Your task to perform on an android device: open sync settings in chrome Image 0: 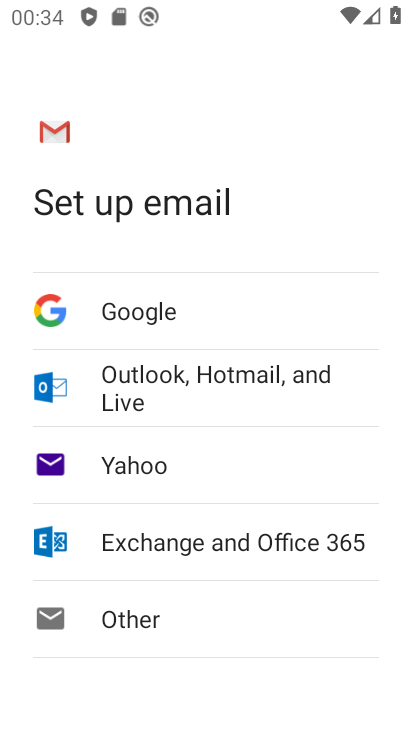
Step 0: press home button
Your task to perform on an android device: open sync settings in chrome Image 1: 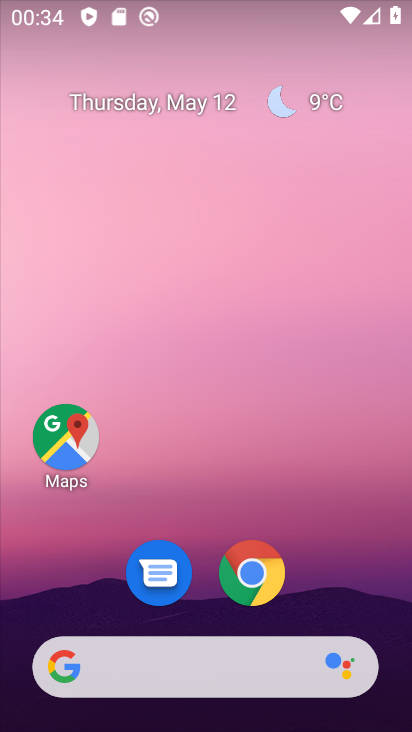
Step 1: click (266, 566)
Your task to perform on an android device: open sync settings in chrome Image 2: 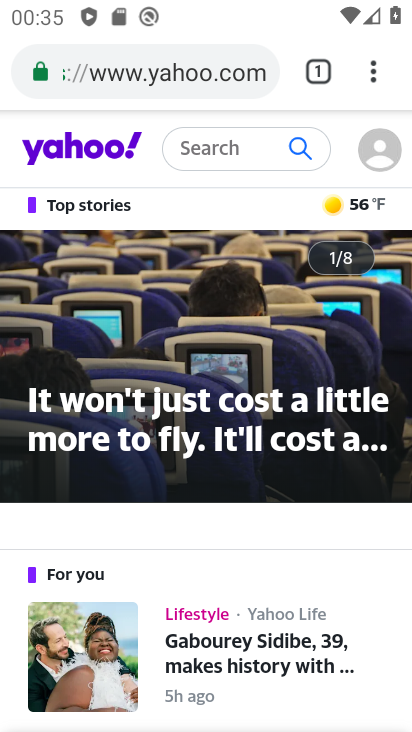
Step 2: click (378, 70)
Your task to perform on an android device: open sync settings in chrome Image 3: 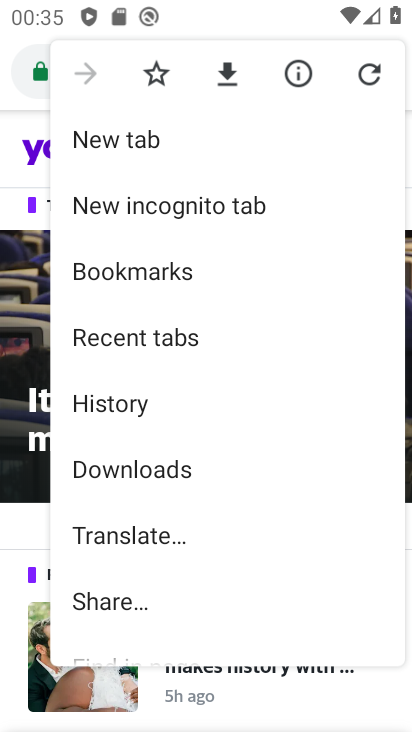
Step 3: drag from (127, 566) to (158, 291)
Your task to perform on an android device: open sync settings in chrome Image 4: 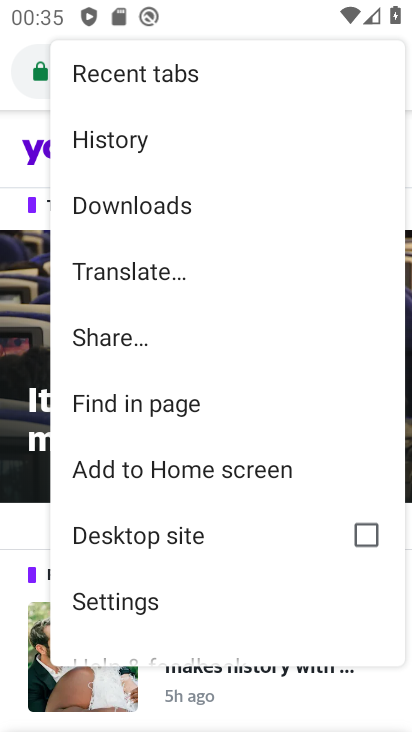
Step 4: click (125, 584)
Your task to perform on an android device: open sync settings in chrome Image 5: 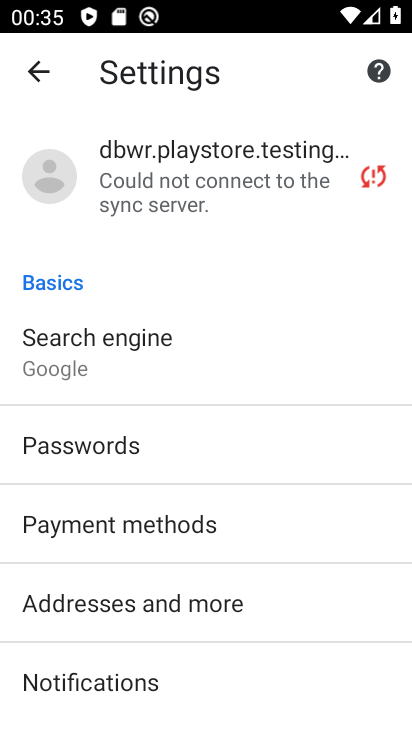
Step 5: click (178, 178)
Your task to perform on an android device: open sync settings in chrome Image 6: 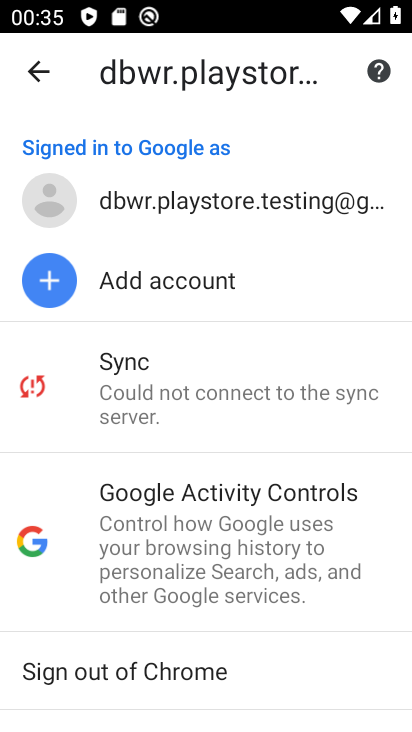
Step 6: click (143, 381)
Your task to perform on an android device: open sync settings in chrome Image 7: 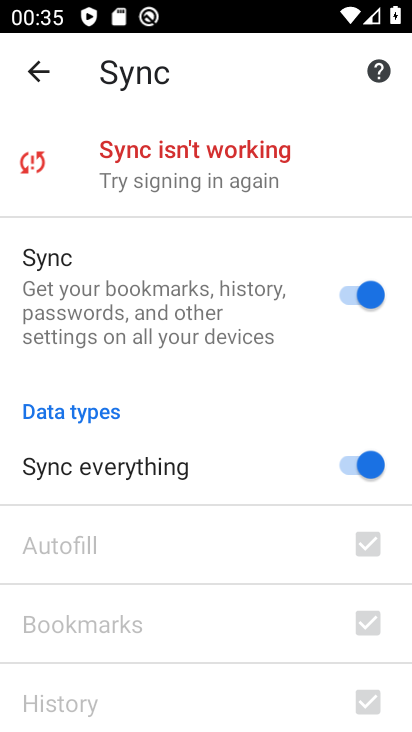
Step 7: task complete